Your task to perform on an android device: turn on priority inbox in the gmail app Image 0: 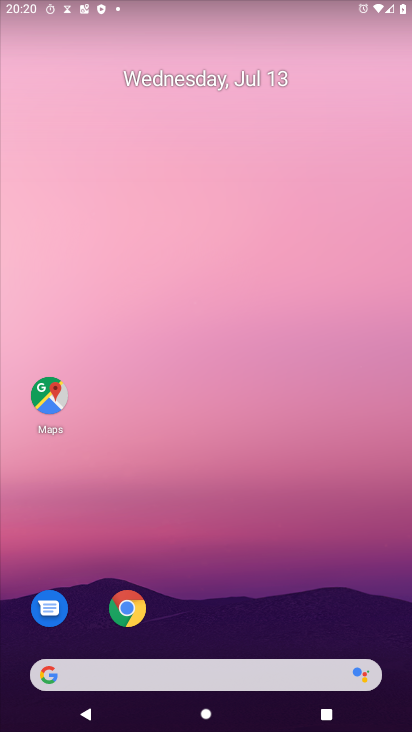
Step 0: drag from (208, 643) to (202, 141)
Your task to perform on an android device: turn on priority inbox in the gmail app Image 1: 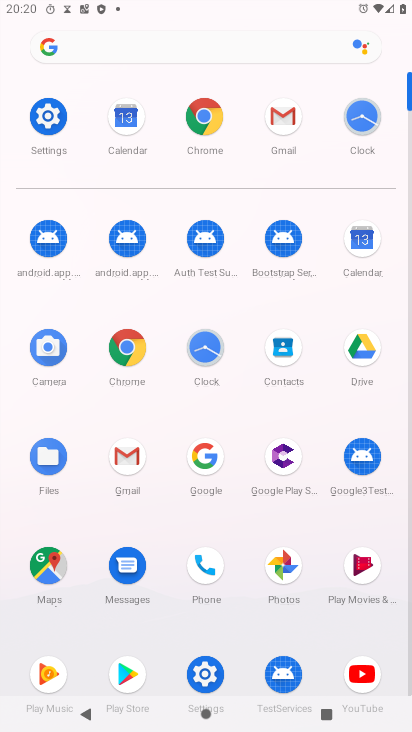
Step 1: click (301, 118)
Your task to perform on an android device: turn on priority inbox in the gmail app Image 2: 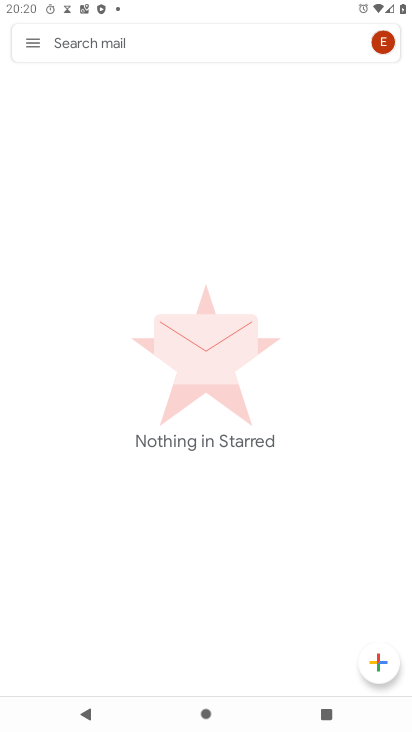
Step 2: click (29, 36)
Your task to perform on an android device: turn on priority inbox in the gmail app Image 3: 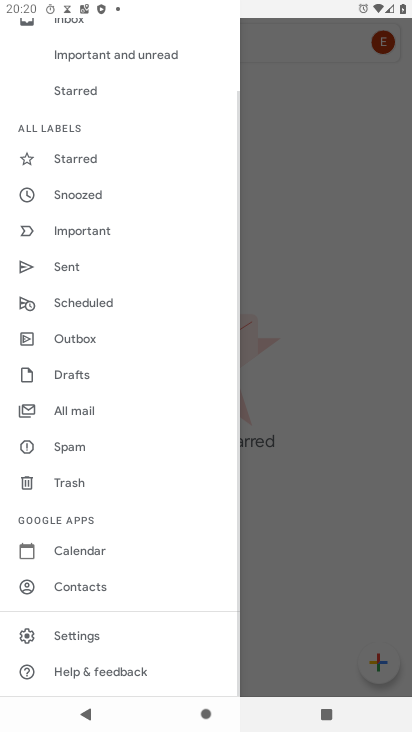
Step 3: click (46, 640)
Your task to perform on an android device: turn on priority inbox in the gmail app Image 4: 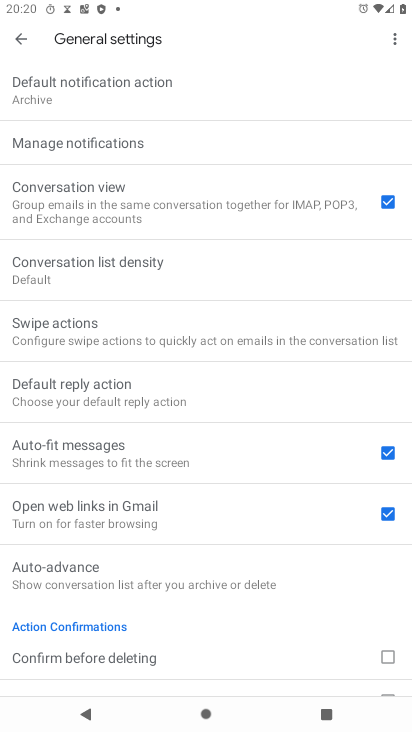
Step 4: click (6, 31)
Your task to perform on an android device: turn on priority inbox in the gmail app Image 5: 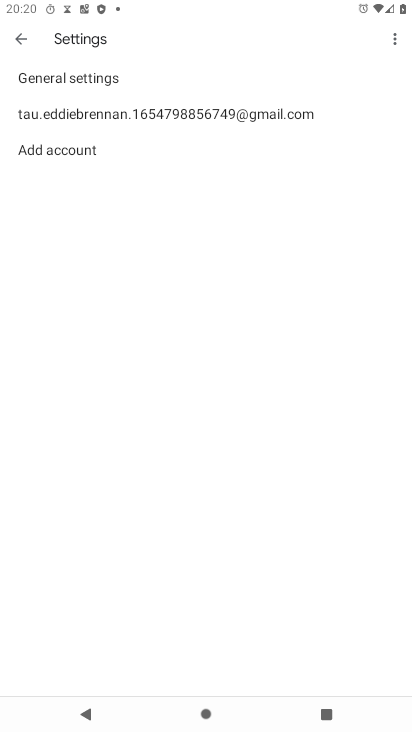
Step 5: click (57, 121)
Your task to perform on an android device: turn on priority inbox in the gmail app Image 6: 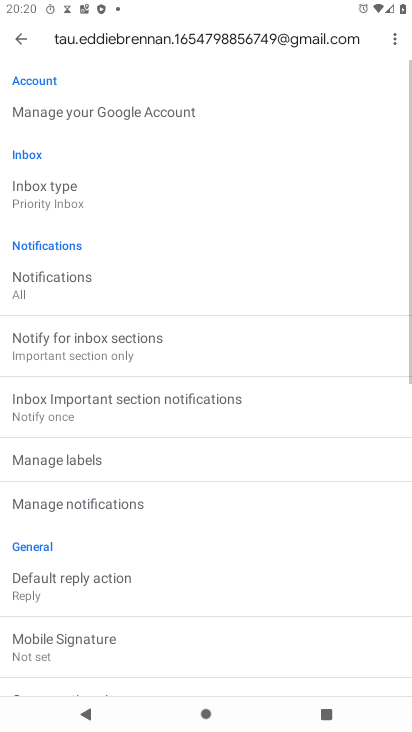
Step 6: click (55, 194)
Your task to perform on an android device: turn on priority inbox in the gmail app Image 7: 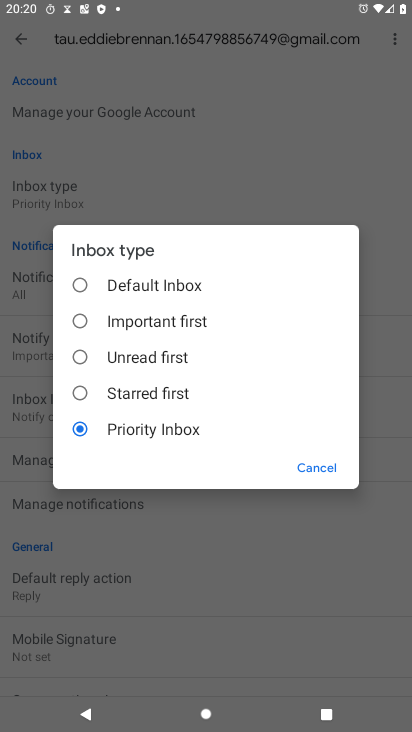
Step 7: click (81, 428)
Your task to perform on an android device: turn on priority inbox in the gmail app Image 8: 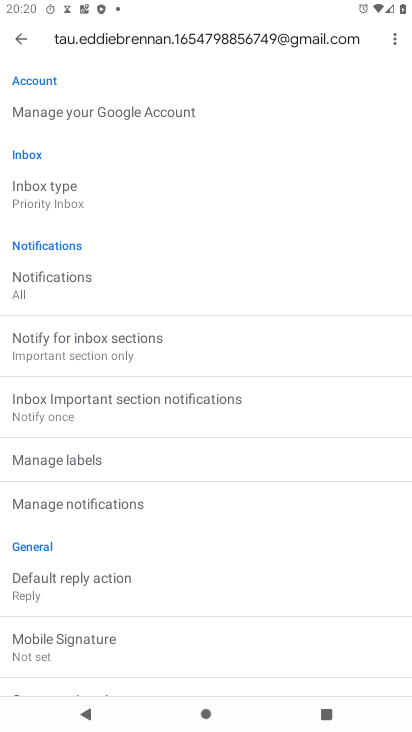
Step 8: task complete